Your task to perform on an android device: Go to location settings Image 0: 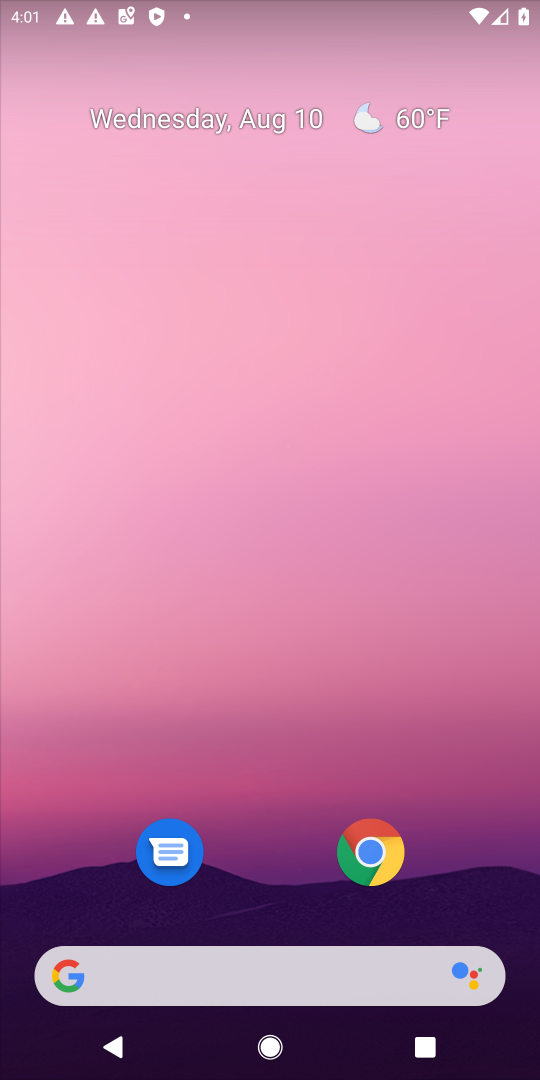
Step 0: drag from (298, 778) to (471, 147)
Your task to perform on an android device: Go to location settings Image 1: 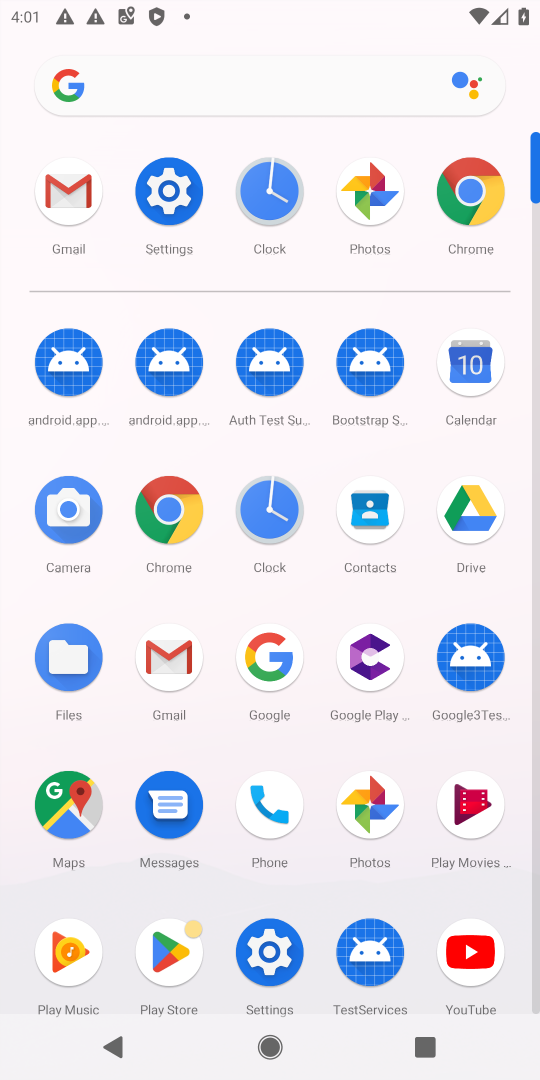
Step 1: click (189, 182)
Your task to perform on an android device: Go to location settings Image 2: 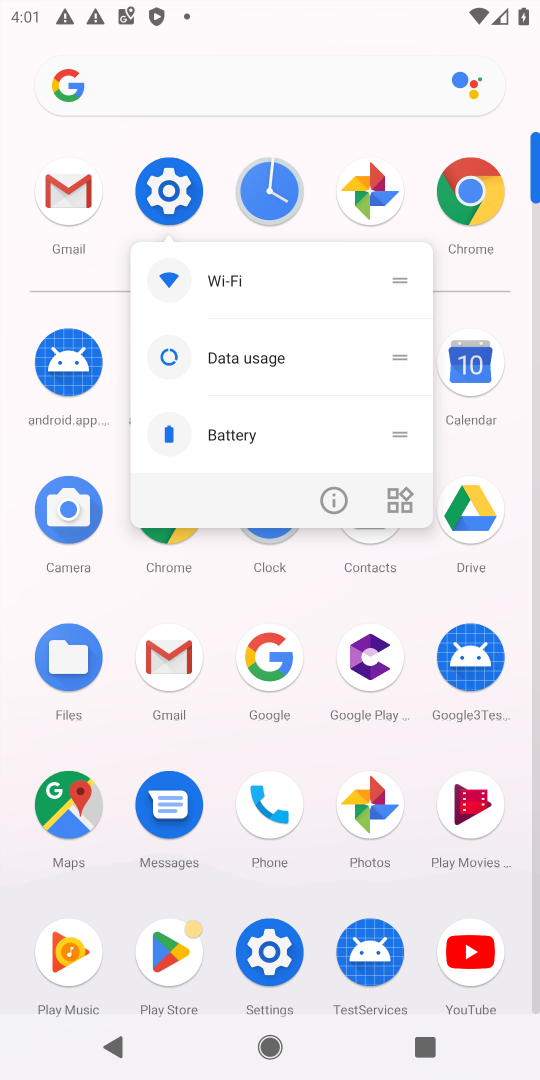
Step 2: click (274, 974)
Your task to perform on an android device: Go to location settings Image 3: 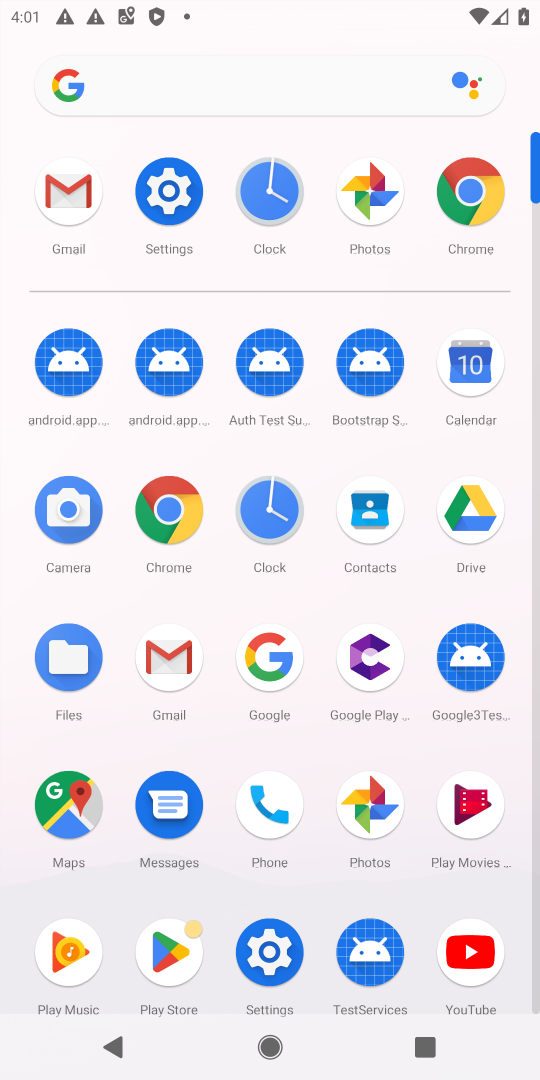
Step 3: click (281, 963)
Your task to perform on an android device: Go to location settings Image 4: 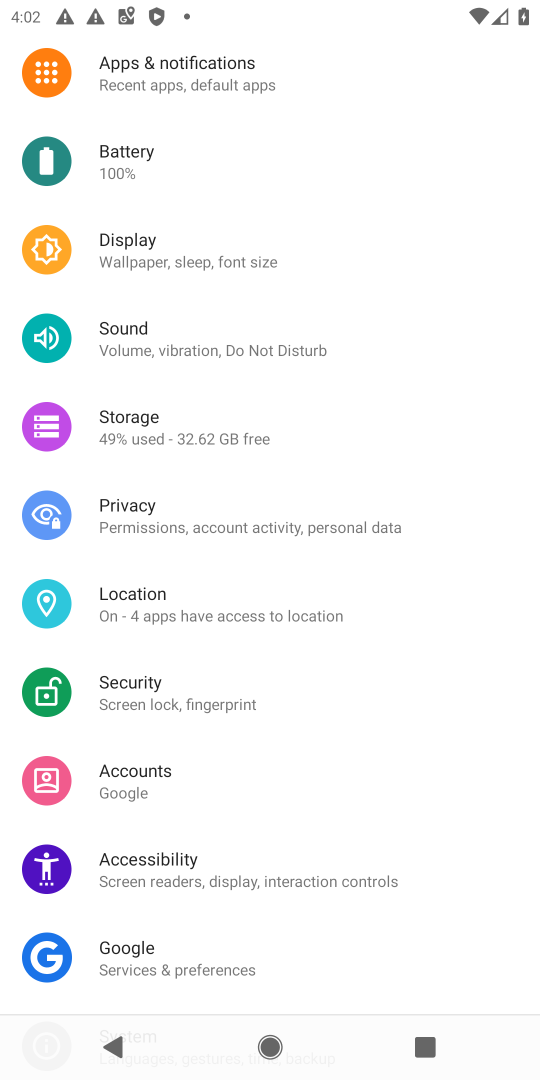
Step 4: click (130, 590)
Your task to perform on an android device: Go to location settings Image 5: 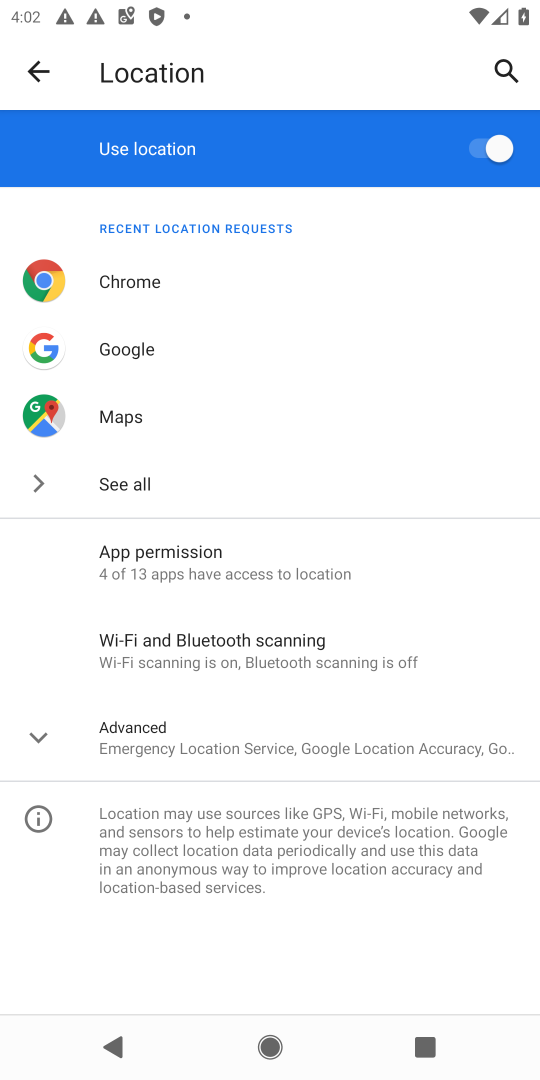
Step 5: task complete